Your task to perform on an android device: Go to Reddit.com Image 0: 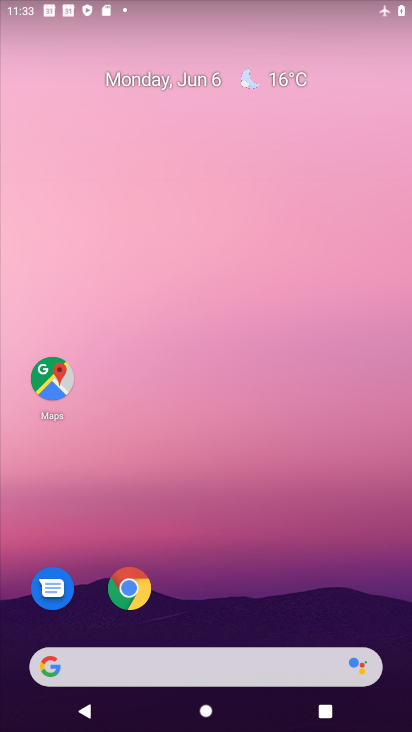
Step 0: click (130, 591)
Your task to perform on an android device: Go to Reddit.com Image 1: 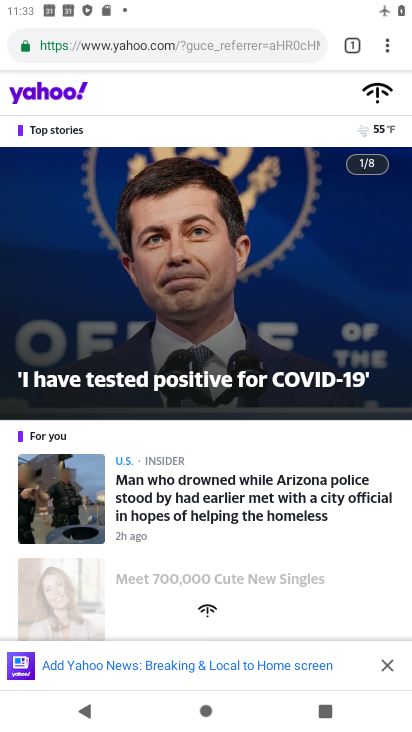
Step 1: click (266, 51)
Your task to perform on an android device: Go to Reddit.com Image 2: 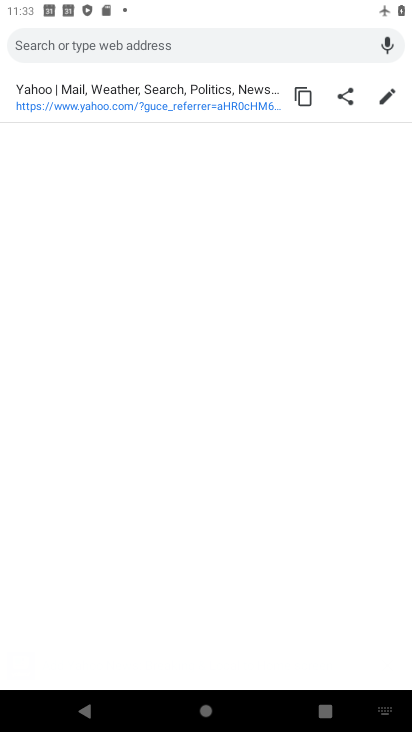
Step 2: type "Reddit.com"
Your task to perform on an android device: Go to Reddit.com Image 3: 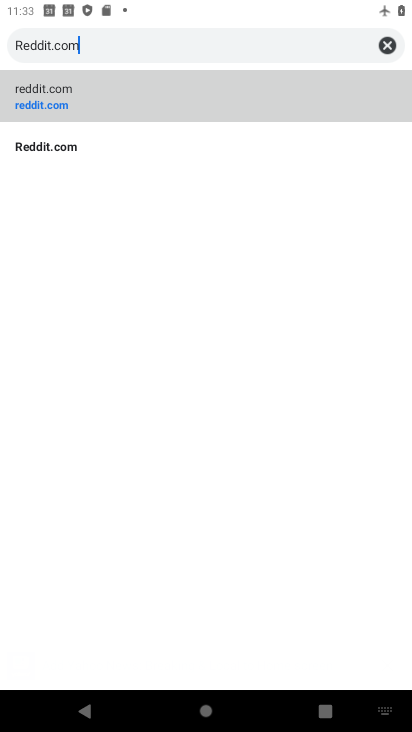
Step 3: click (34, 148)
Your task to perform on an android device: Go to Reddit.com Image 4: 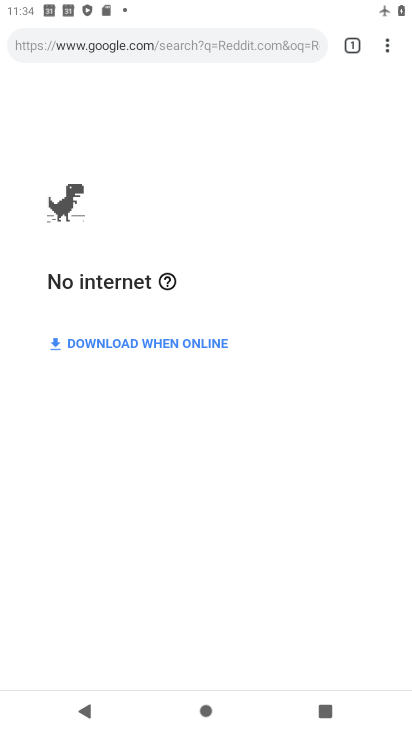
Step 4: task complete